Your task to perform on an android device: Open Reddit.com Image 0: 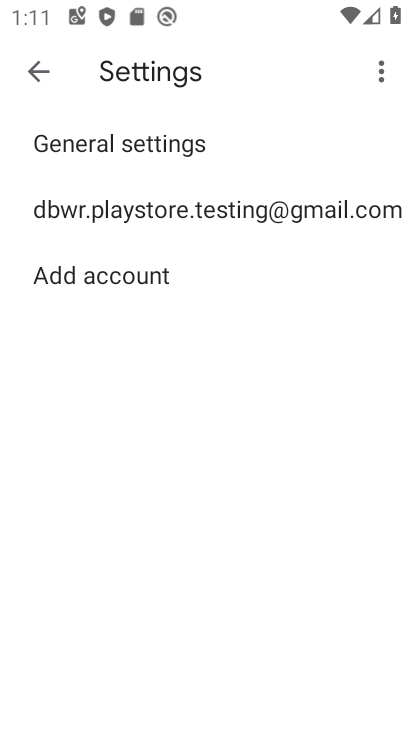
Step 0: press home button
Your task to perform on an android device: Open Reddit.com Image 1: 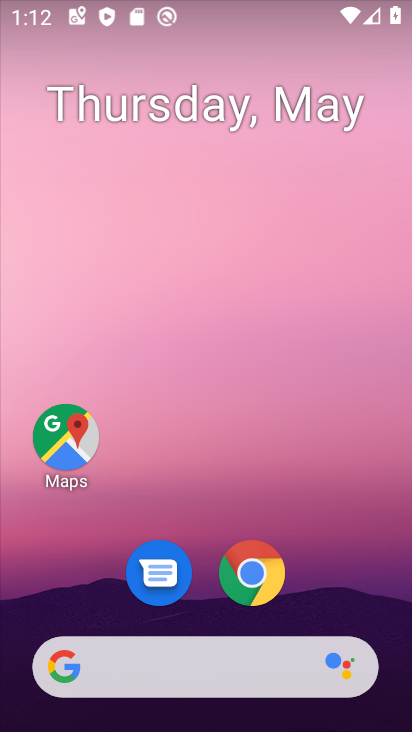
Step 1: click (243, 592)
Your task to perform on an android device: Open Reddit.com Image 2: 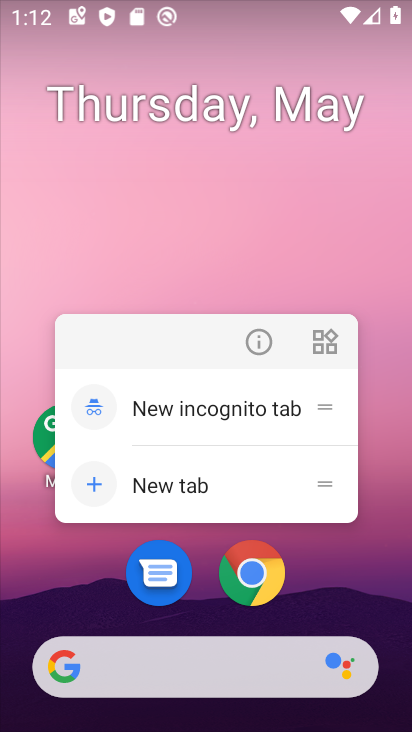
Step 2: click (250, 582)
Your task to perform on an android device: Open Reddit.com Image 3: 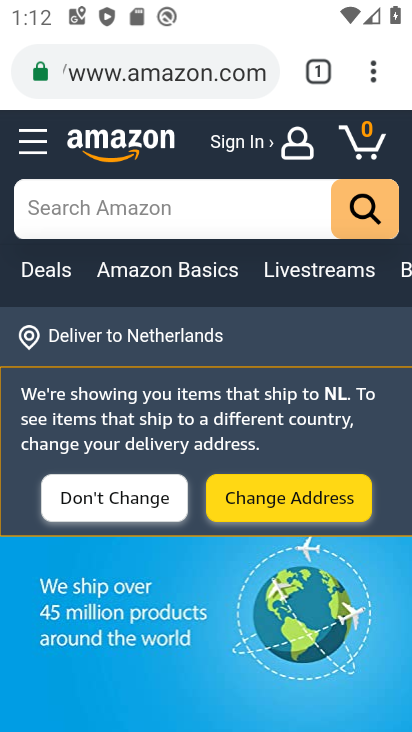
Step 3: click (174, 81)
Your task to perform on an android device: Open Reddit.com Image 4: 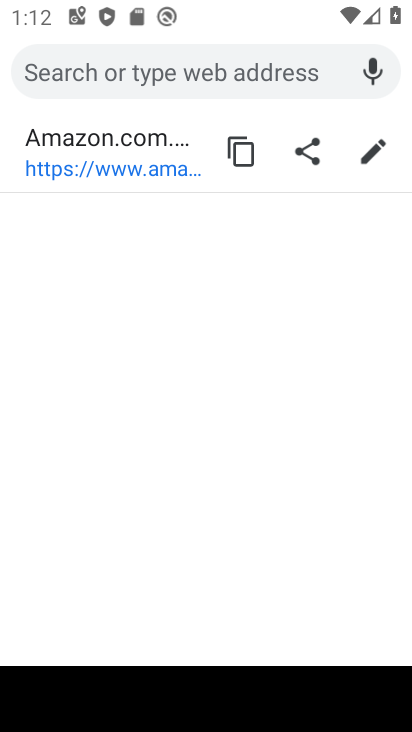
Step 4: type "reddit.com"
Your task to perform on an android device: Open Reddit.com Image 5: 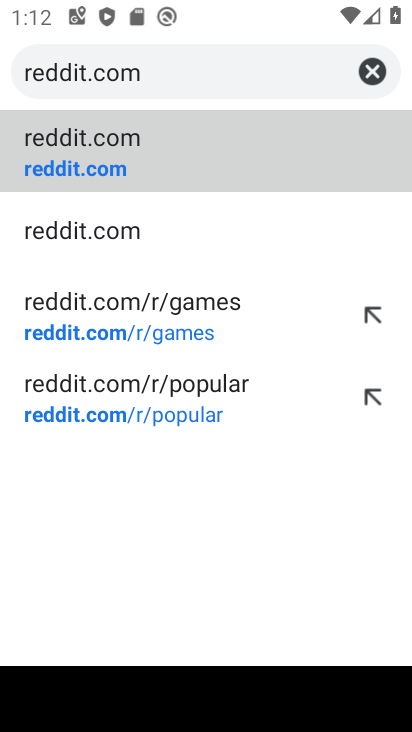
Step 5: click (210, 136)
Your task to perform on an android device: Open Reddit.com Image 6: 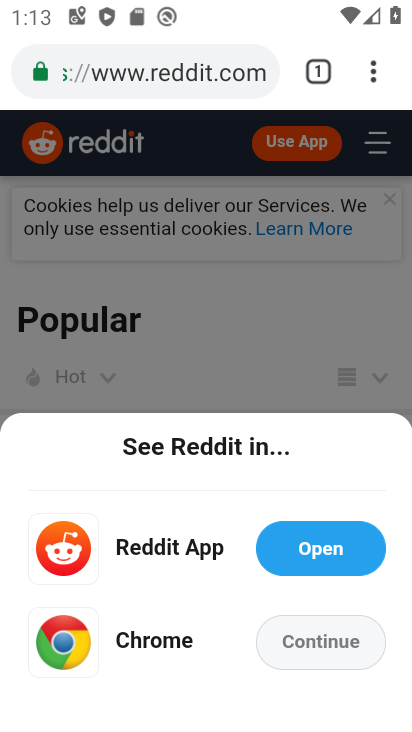
Step 6: click (318, 659)
Your task to perform on an android device: Open Reddit.com Image 7: 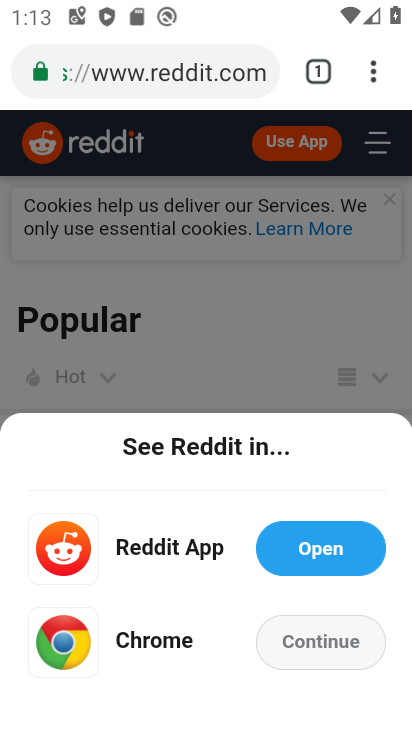
Step 7: click (319, 659)
Your task to perform on an android device: Open Reddit.com Image 8: 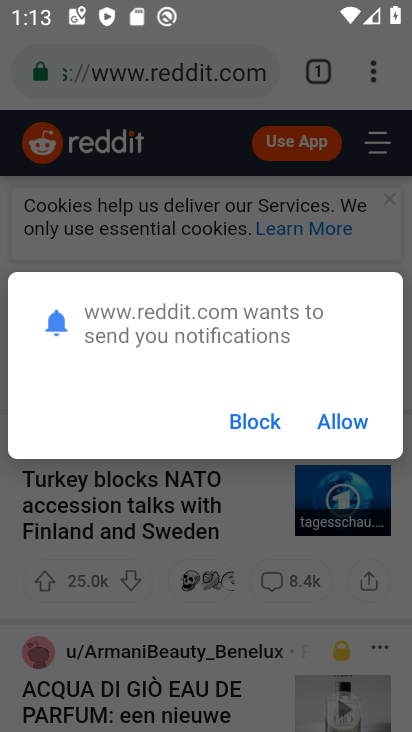
Step 8: task complete